Your task to perform on an android device: Open battery settings Image 0: 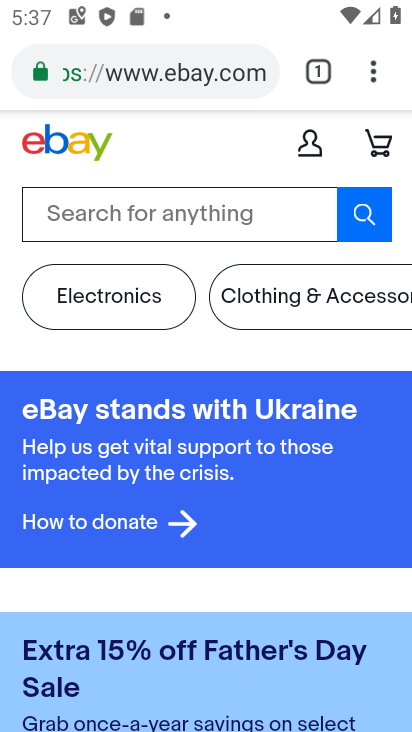
Step 0: press home button
Your task to perform on an android device: Open battery settings Image 1: 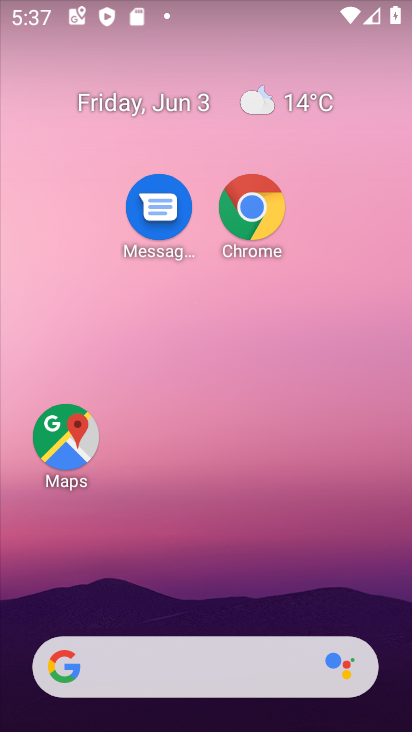
Step 1: drag from (196, 594) to (163, 322)
Your task to perform on an android device: Open battery settings Image 2: 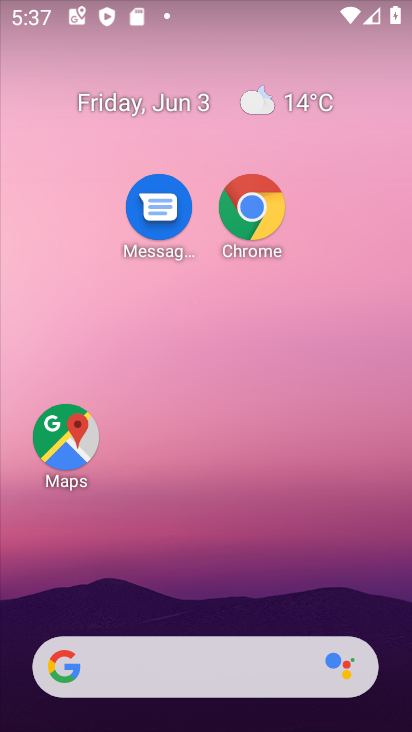
Step 2: drag from (206, 528) to (220, 238)
Your task to perform on an android device: Open battery settings Image 3: 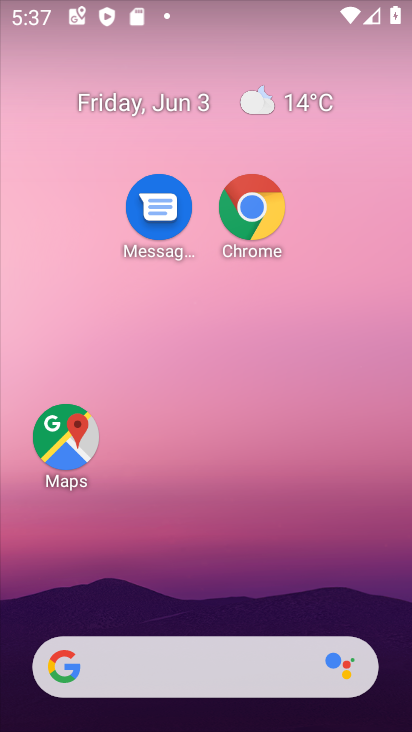
Step 3: drag from (185, 557) to (221, 128)
Your task to perform on an android device: Open battery settings Image 4: 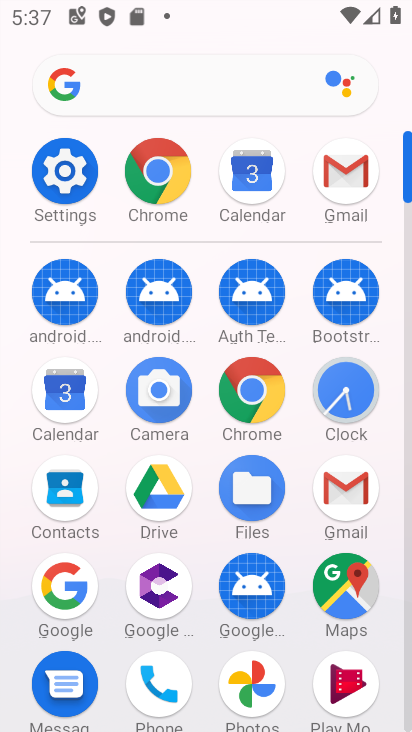
Step 4: click (66, 170)
Your task to perform on an android device: Open battery settings Image 5: 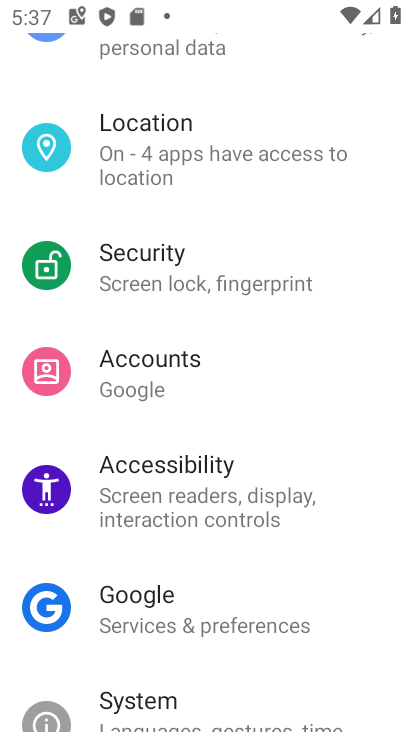
Step 5: drag from (203, 234) to (222, 479)
Your task to perform on an android device: Open battery settings Image 6: 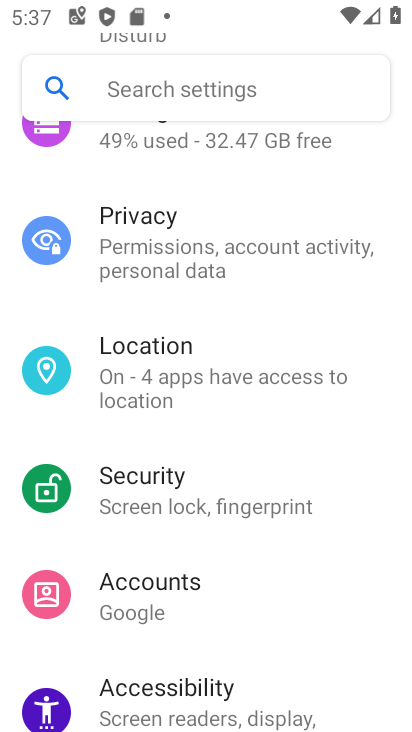
Step 6: drag from (199, 297) to (199, 444)
Your task to perform on an android device: Open battery settings Image 7: 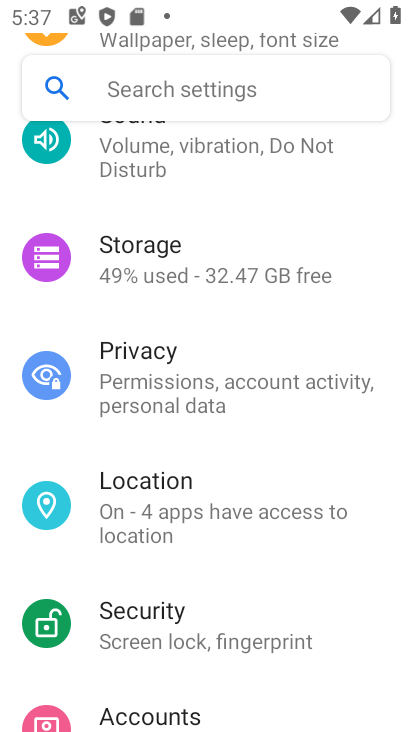
Step 7: drag from (200, 318) to (188, 475)
Your task to perform on an android device: Open battery settings Image 8: 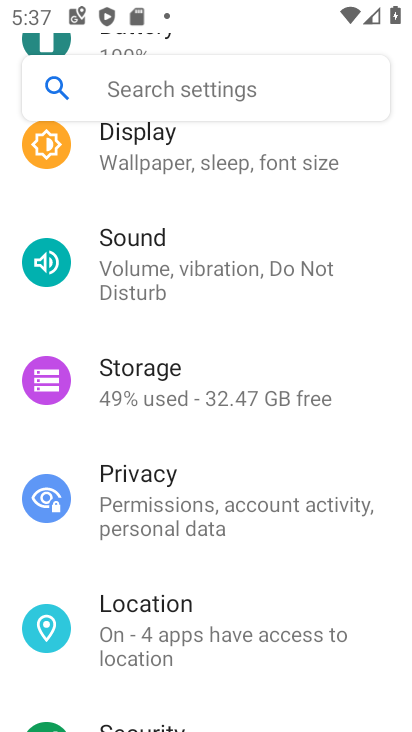
Step 8: drag from (200, 295) to (181, 468)
Your task to perform on an android device: Open battery settings Image 9: 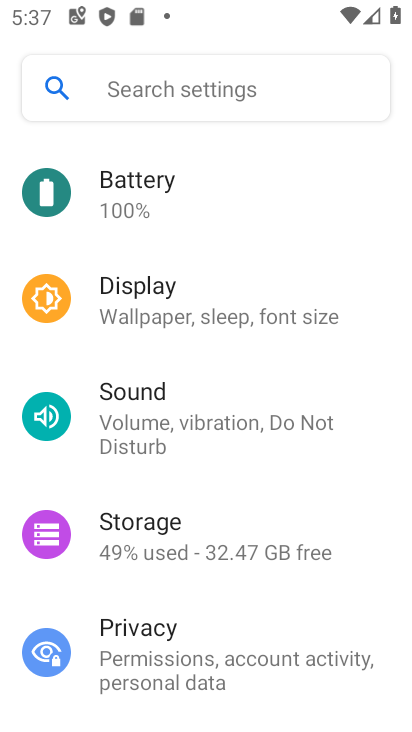
Step 9: click (112, 206)
Your task to perform on an android device: Open battery settings Image 10: 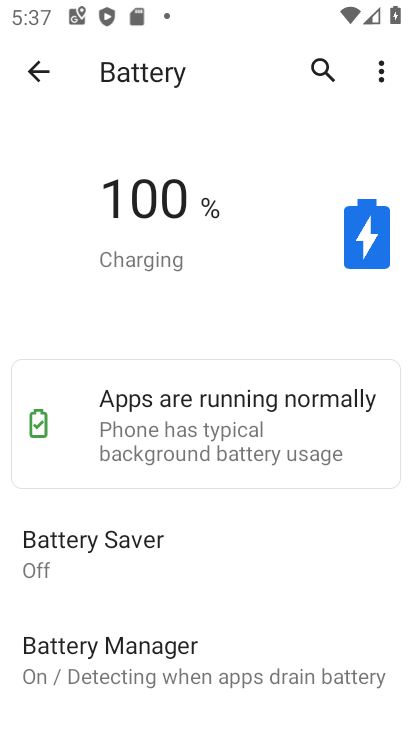
Step 10: task complete